Your task to perform on an android device: Open Wikipedia Image 0: 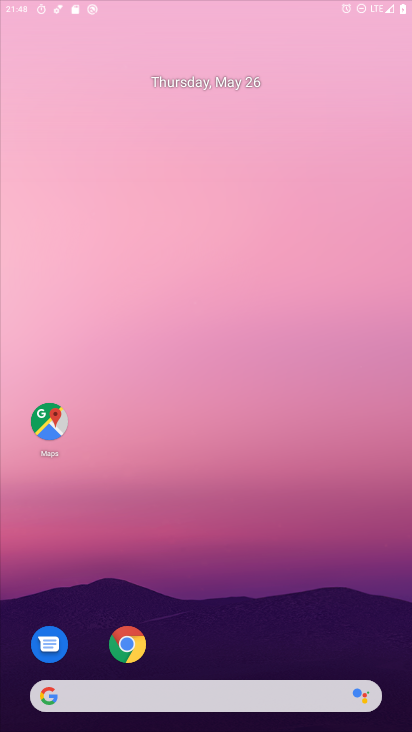
Step 0: click (248, 82)
Your task to perform on an android device: Open Wikipedia Image 1: 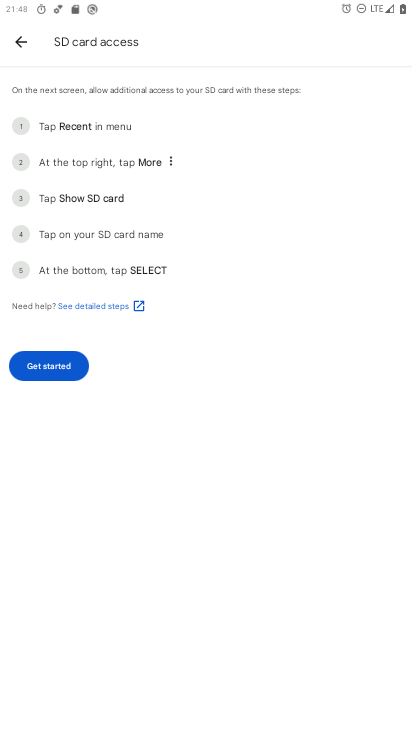
Step 1: press home button
Your task to perform on an android device: Open Wikipedia Image 2: 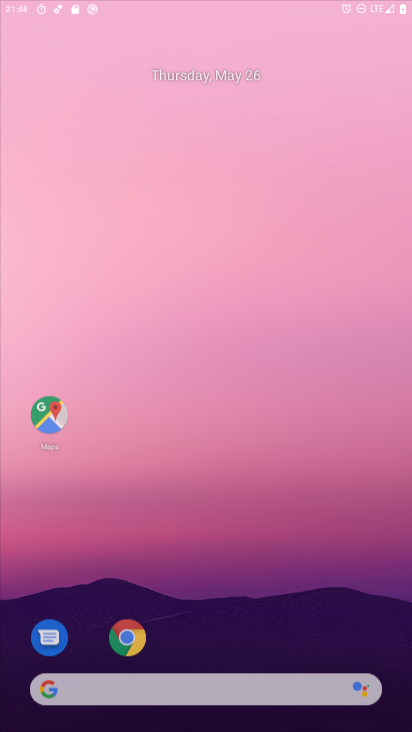
Step 2: drag from (189, 625) to (278, 140)
Your task to perform on an android device: Open Wikipedia Image 3: 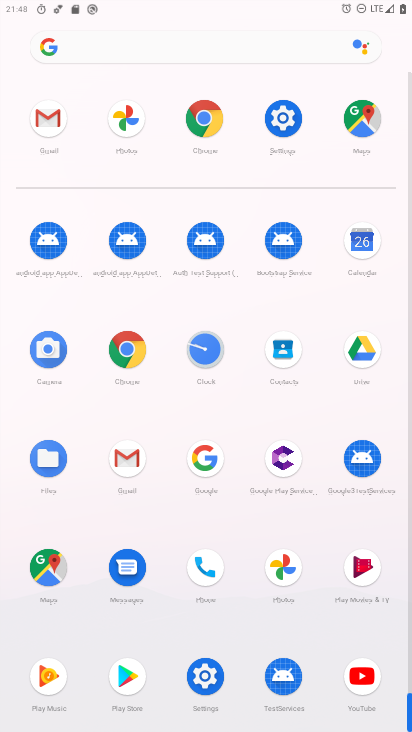
Step 3: click (123, 45)
Your task to perform on an android device: Open Wikipedia Image 4: 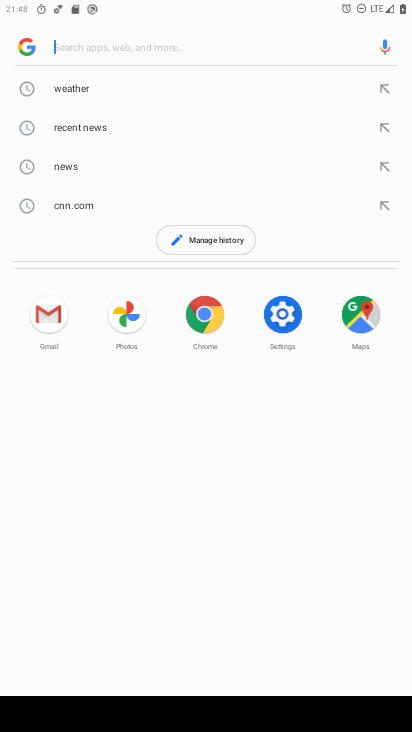
Step 4: type "wikipedia"
Your task to perform on an android device: Open Wikipedia Image 5: 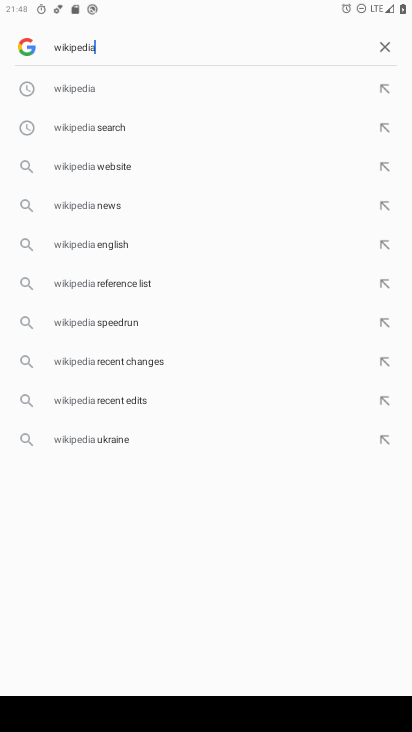
Step 5: click (121, 87)
Your task to perform on an android device: Open Wikipedia Image 6: 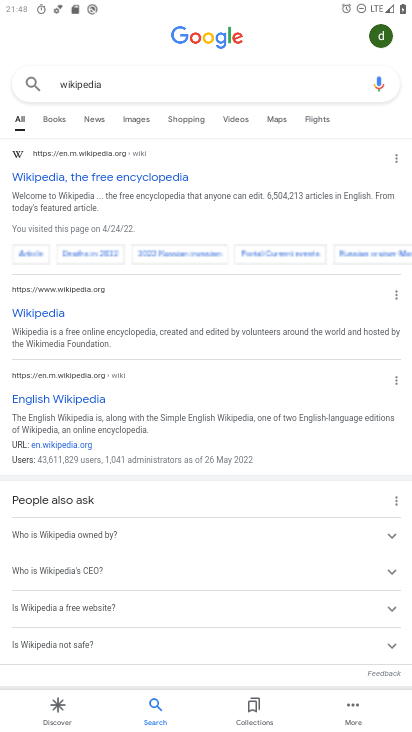
Step 6: drag from (205, 612) to (250, 173)
Your task to perform on an android device: Open Wikipedia Image 7: 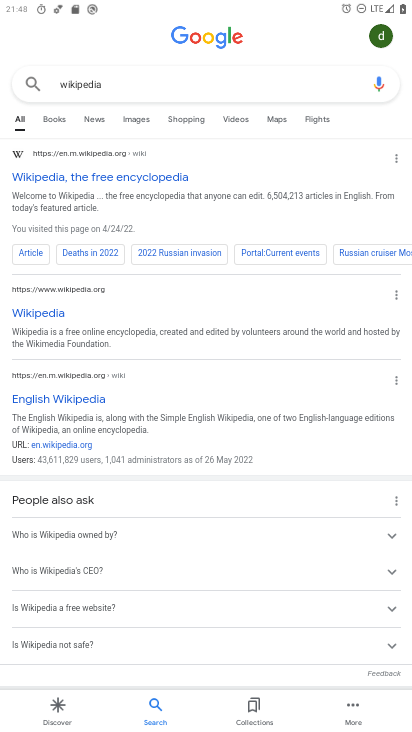
Step 7: drag from (250, 172) to (233, 532)
Your task to perform on an android device: Open Wikipedia Image 8: 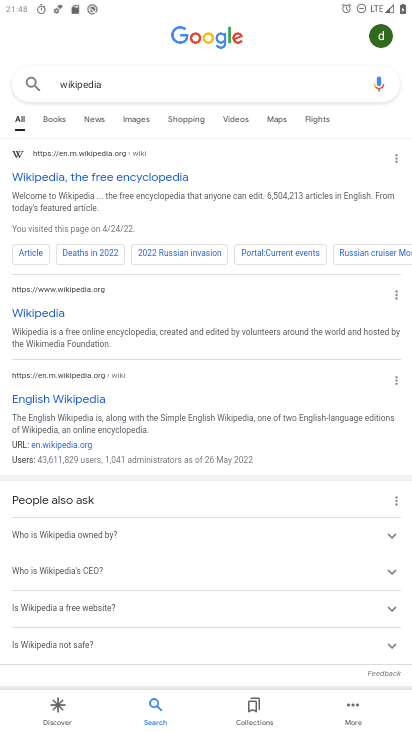
Step 8: click (37, 313)
Your task to perform on an android device: Open Wikipedia Image 9: 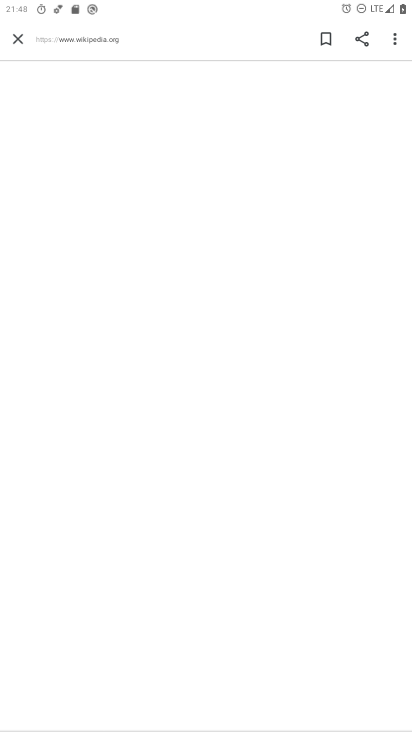
Step 9: task complete